Your task to perform on an android device: change alarm snooze length Image 0: 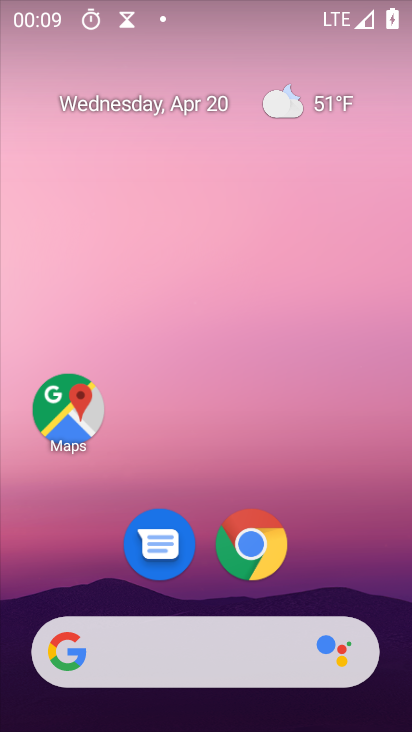
Step 0: drag from (316, 570) to (370, 71)
Your task to perform on an android device: change alarm snooze length Image 1: 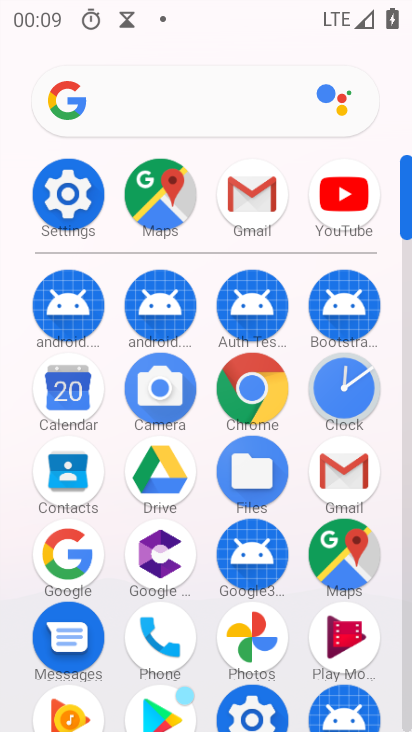
Step 1: click (334, 405)
Your task to perform on an android device: change alarm snooze length Image 2: 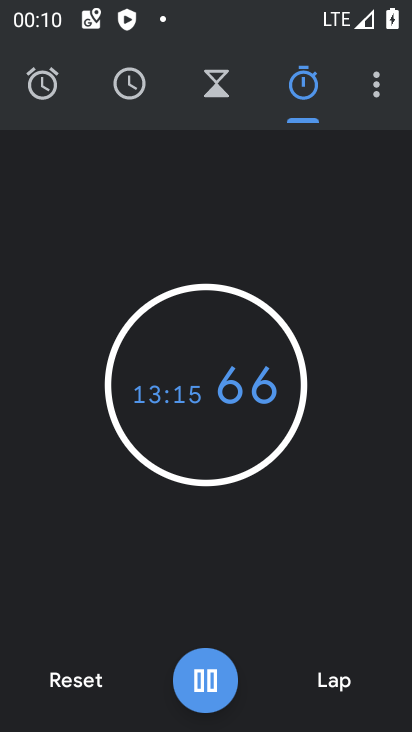
Step 2: click (372, 83)
Your task to perform on an android device: change alarm snooze length Image 3: 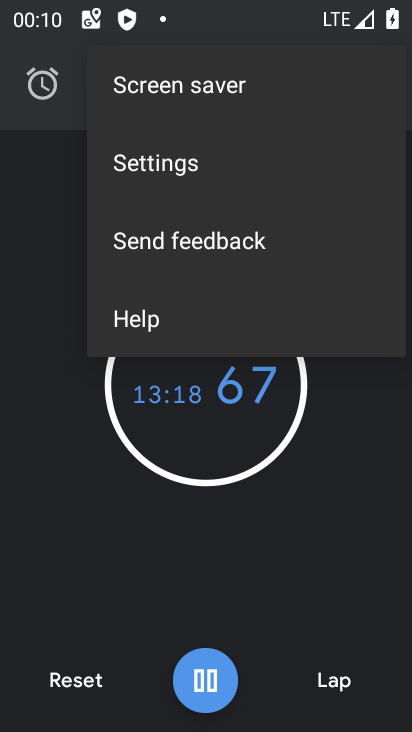
Step 3: click (279, 179)
Your task to perform on an android device: change alarm snooze length Image 4: 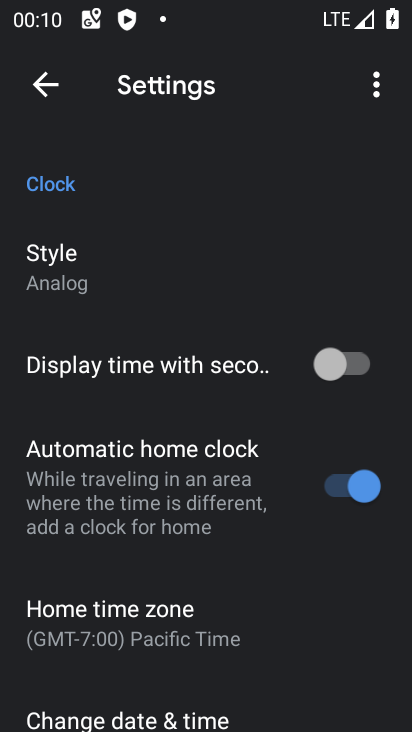
Step 4: drag from (210, 594) to (222, 456)
Your task to perform on an android device: change alarm snooze length Image 5: 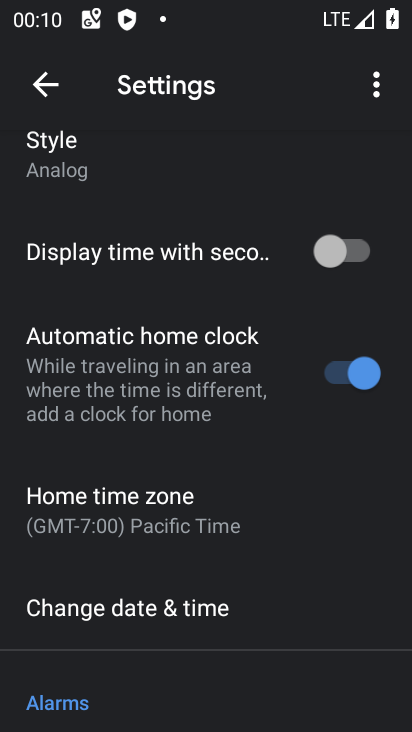
Step 5: drag from (244, 578) to (253, 473)
Your task to perform on an android device: change alarm snooze length Image 6: 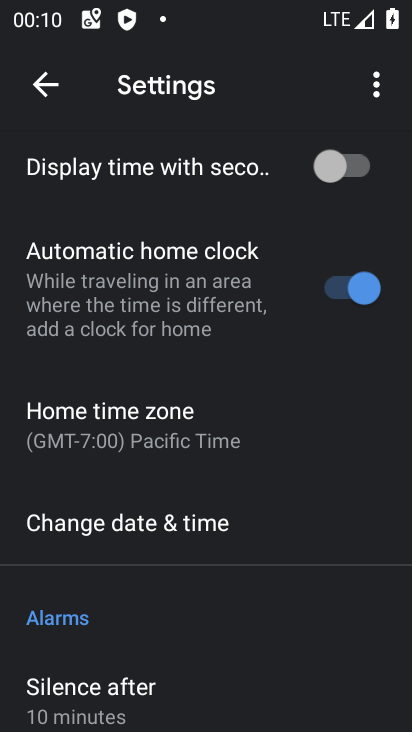
Step 6: drag from (258, 588) to (267, 469)
Your task to perform on an android device: change alarm snooze length Image 7: 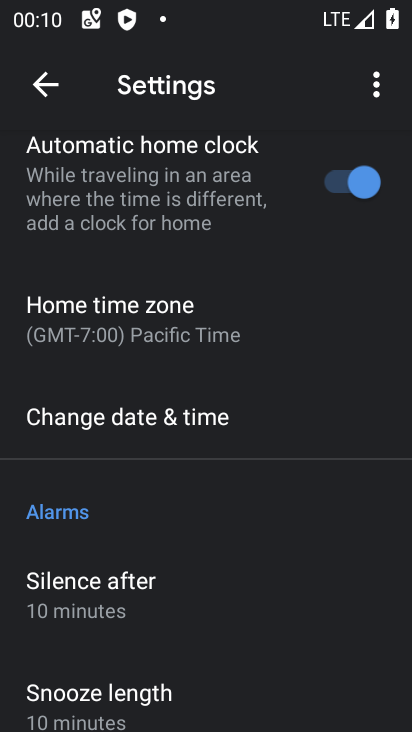
Step 7: drag from (292, 554) to (290, 470)
Your task to perform on an android device: change alarm snooze length Image 8: 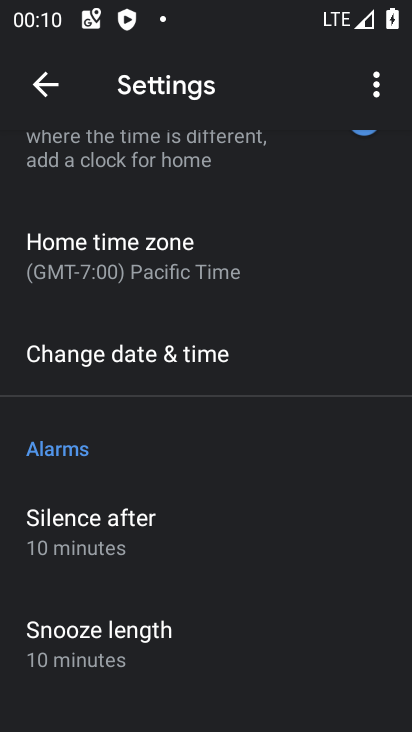
Step 8: click (151, 651)
Your task to perform on an android device: change alarm snooze length Image 9: 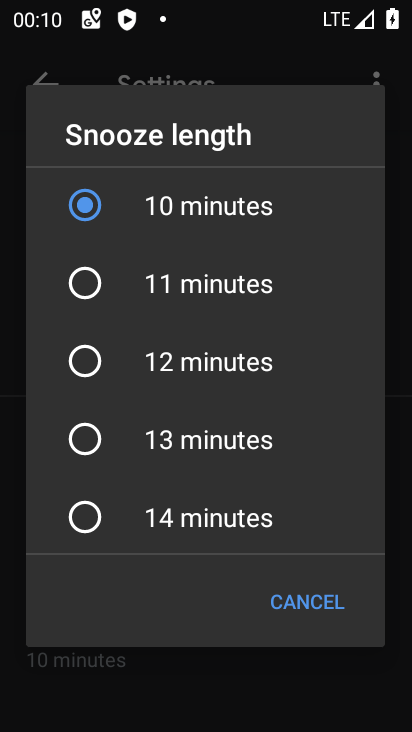
Step 9: click (228, 383)
Your task to perform on an android device: change alarm snooze length Image 10: 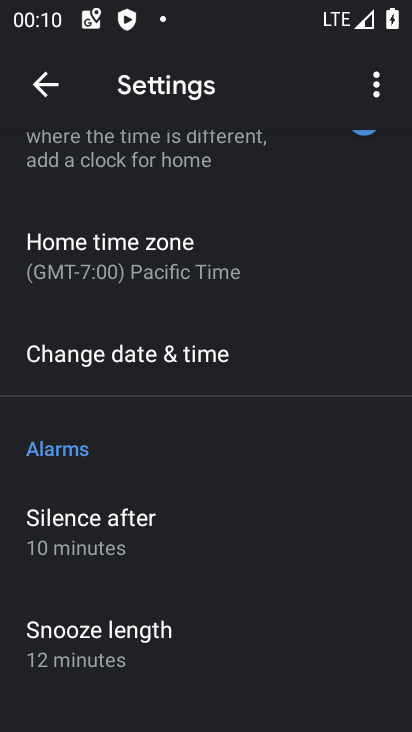
Step 10: task complete